Your task to perform on an android device: Do I have any events today? Image 0: 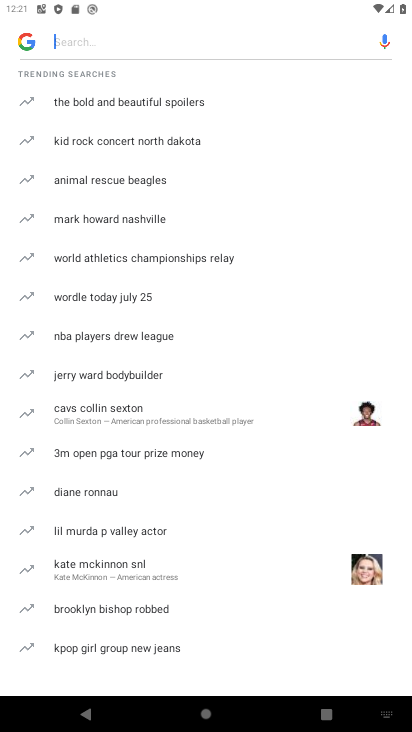
Step 0: press home button
Your task to perform on an android device: Do I have any events today? Image 1: 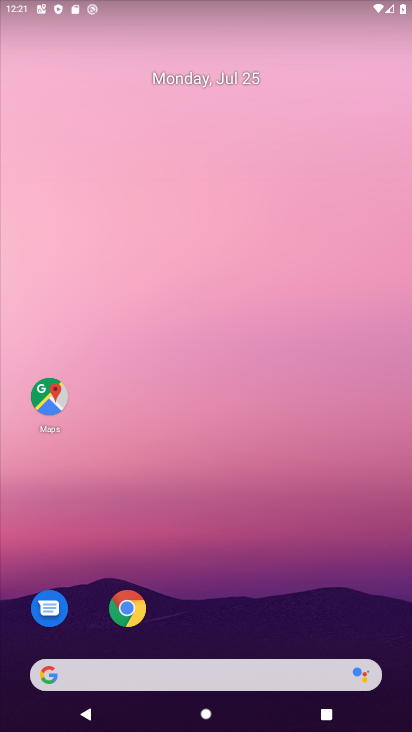
Step 1: drag from (302, 631) to (232, 17)
Your task to perform on an android device: Do I have any events today? Image 2: 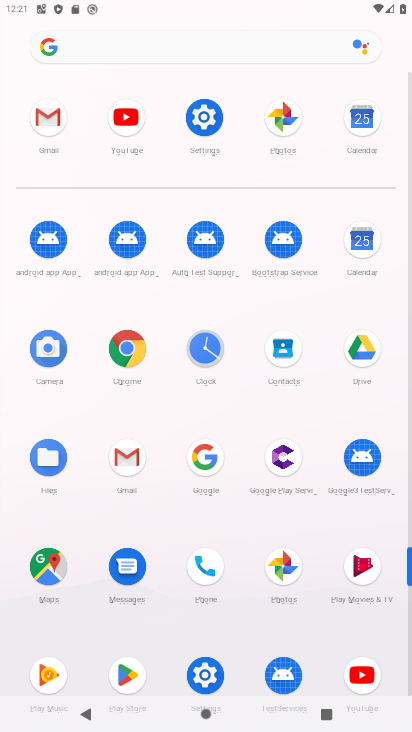
Step 2: click (365, 120)
Your task to perform on an android device: Do I have any events today? Image 3: 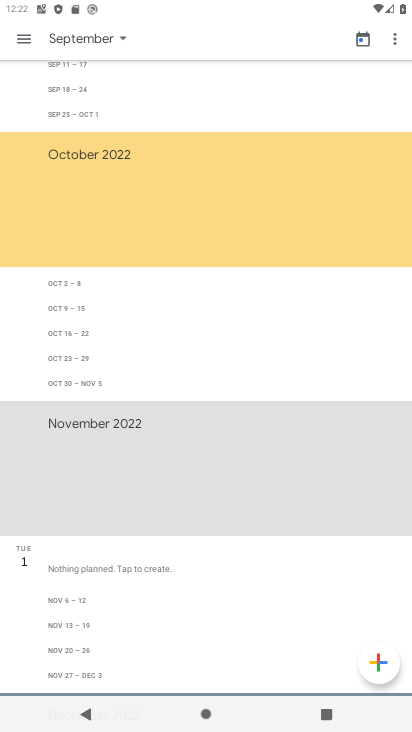
Step 3: click (395, 38)
Your task to perform on an android device: Do I have any events today? Image 4: 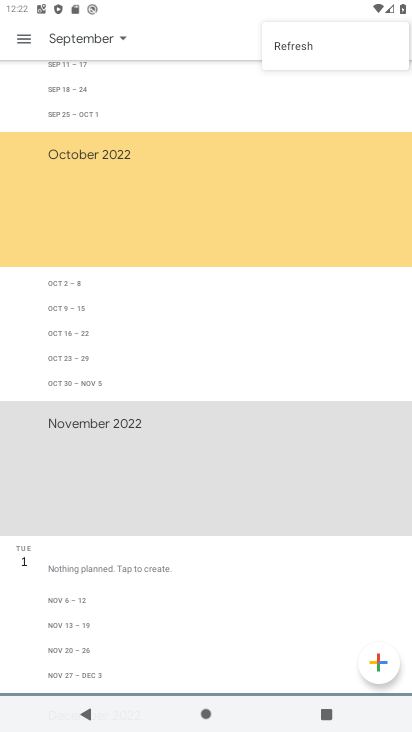
Step 4: click (316, 47)
Your task to perform on an android device: Do I have any events today? Image 5: 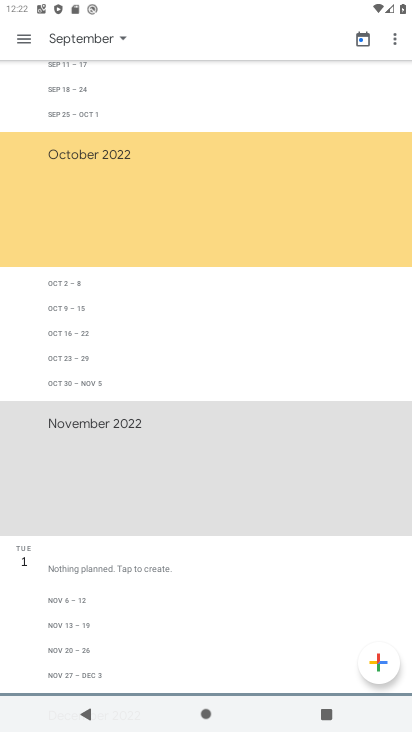
Step 5: click (368, 46)
Your task to perform on an android device: Do I have any events today? Image 6: 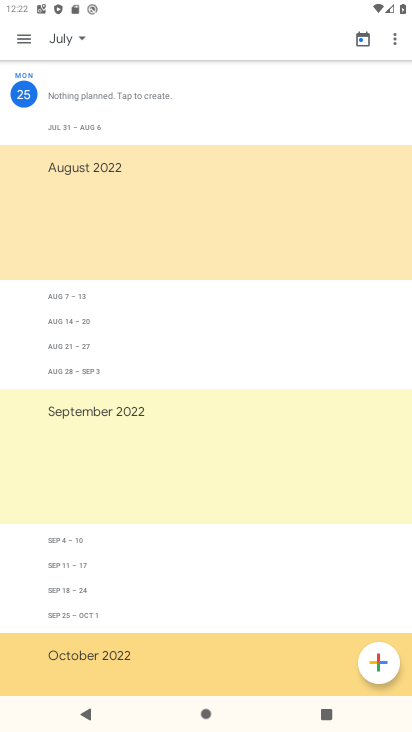
Step 6: click (357, 39)
Your task to perform on an android device: Do I have any events today? Image 7: 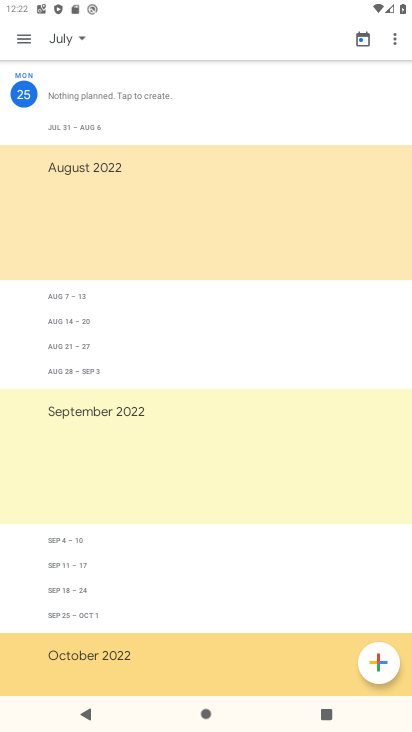
Step 7: click (365, 39)
Your task to perform on an android device: Do I have any events today? Image 8: 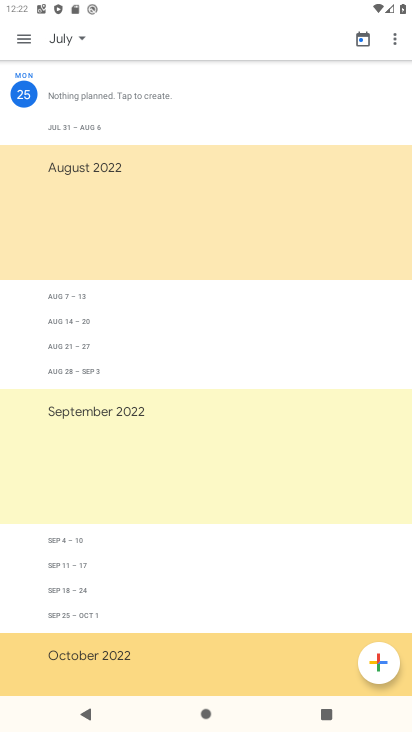
Step 8: click (15, 32)
Your task to perform on an android device: Do I have any events today? Image 9: 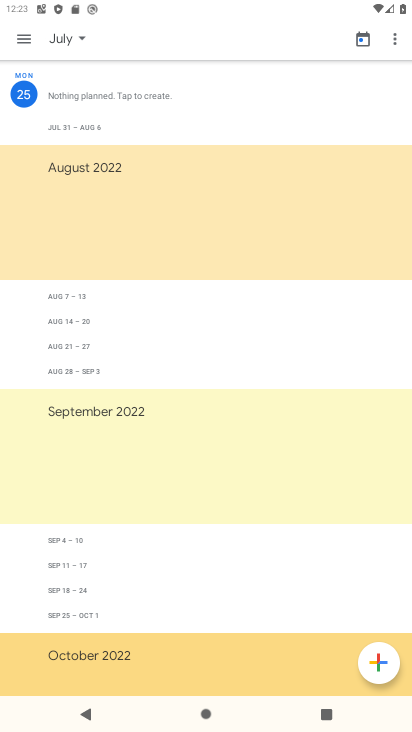
Step 9: click (19, 39)
Your task to perform on an android device: Do I have any events today? Image 10: 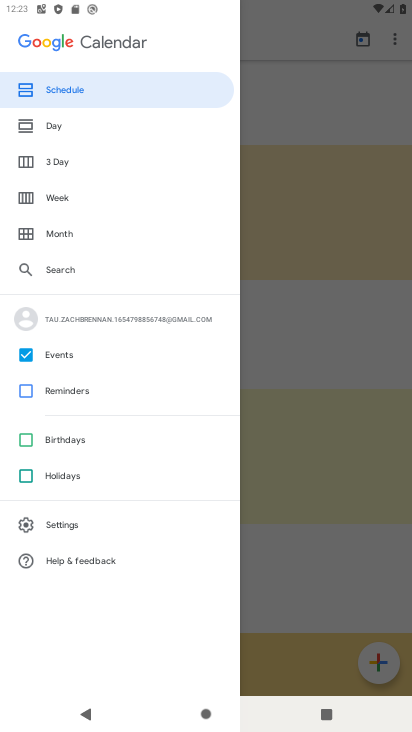
Step 10: click (70, 91)
Your task to perform on an android device: Do I have any events today? Image 11: 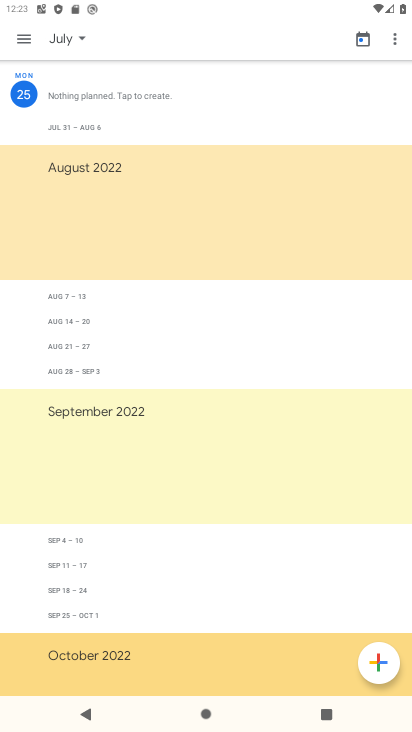
Step 11: drag from (187, 256) to (197, 453)
Your task to perform on an android device: Do I have any events today? Image 12: 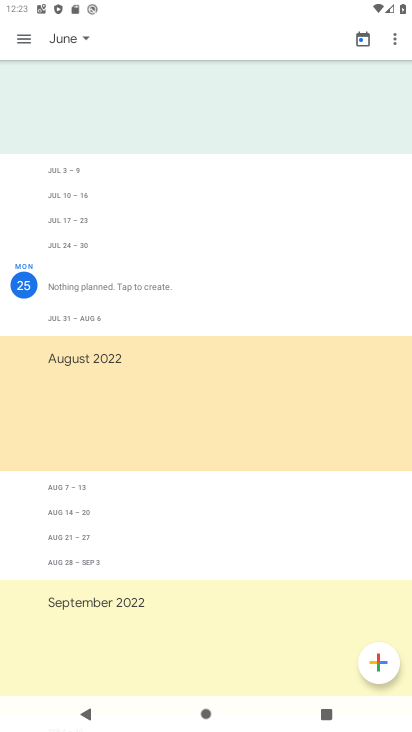
Step 12: drag from (207, 346) to (197, 445)
Your task to perform on an android device: Do I have any events today? Image 13: 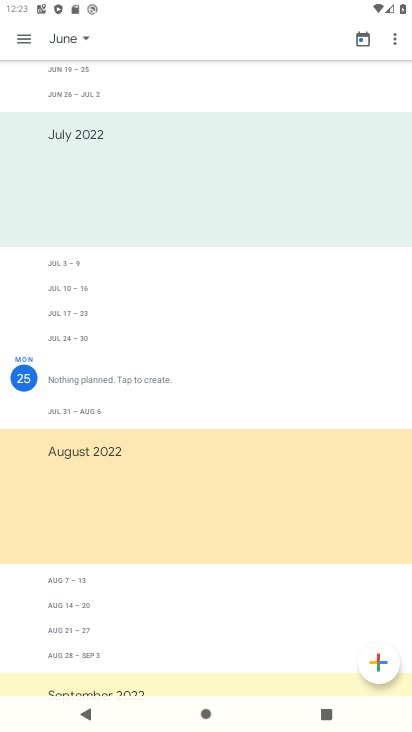
Step 13: click (26, 30)
Your task to perform on an android device: Do I have any events today? Image 14: 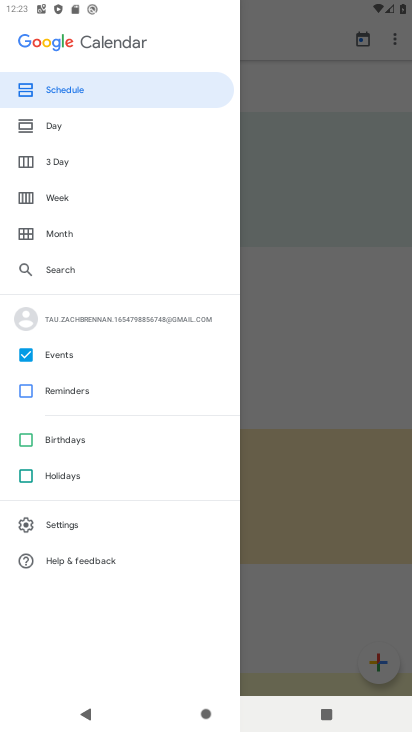
Step 14: click (46, 137)
Your task to perform on an android device: Do I have any events today? Image 15: 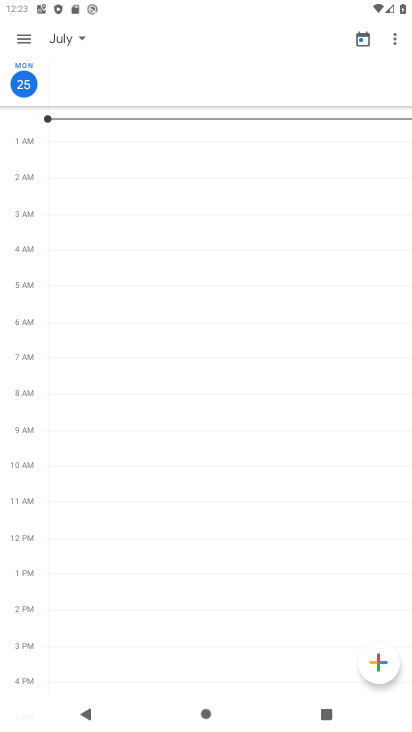
Step 15: click (95, 37)
Your task to perform on an android device: Do I have any events today? Image 16: 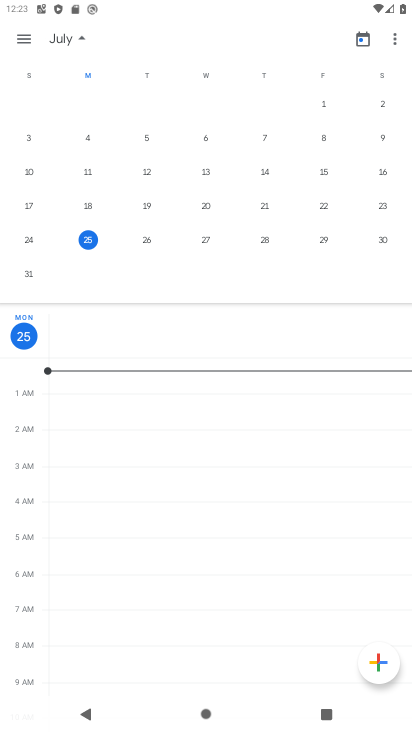
Step 16: click (30, 42)
Your task to perform on an android device: Do I have any events today? Image 17: 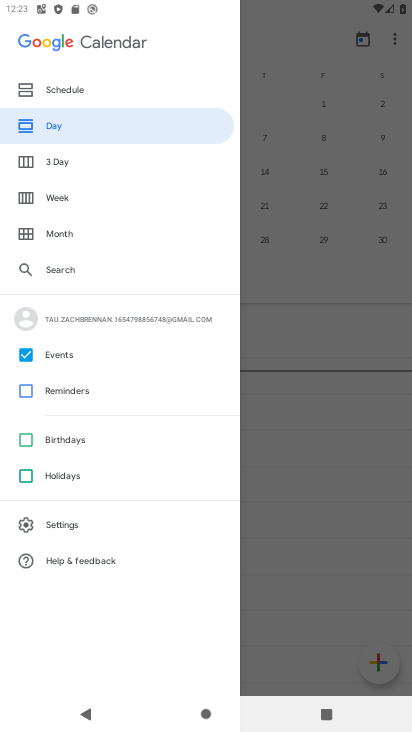
Step 17: click (38, 112)
Your task to perform on an android device: Do I have any events today? Image 18: 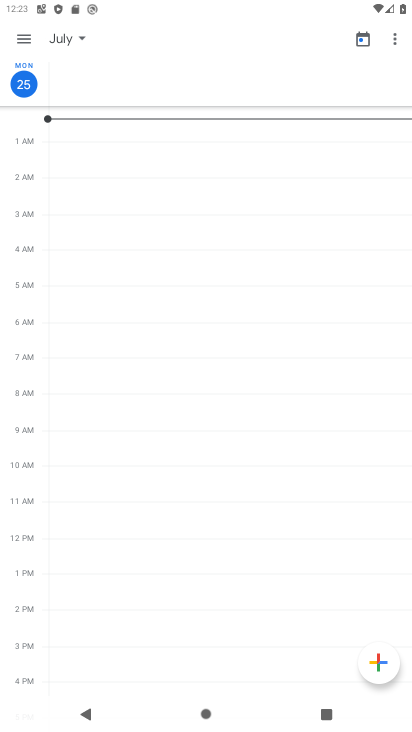
Step 18: task complete